Your task to perform on an android device: Is it going to rain tomorrow? Image 0: 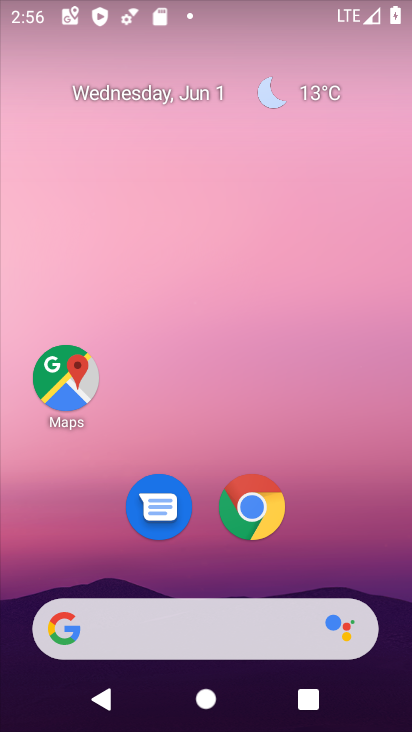
Step 0: drag from (342, 540) to (250, 266)
Your task to perform on an android device: Is it going to rain tomorrow? Image 1: 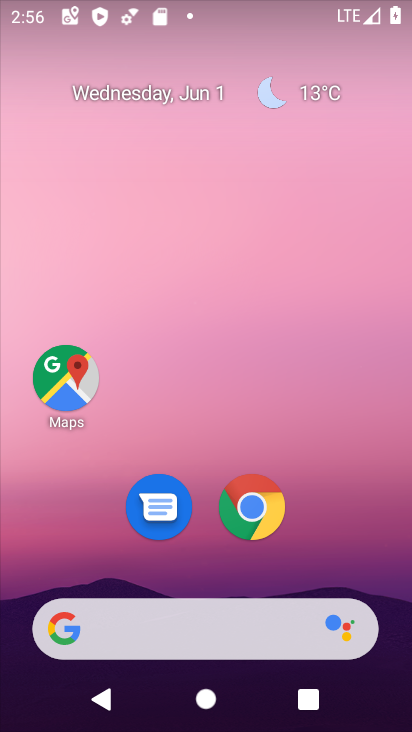
Step 1: click (251, 520)
Your task to perform on an android device: Is it going to rain tomorrow? Image 2: 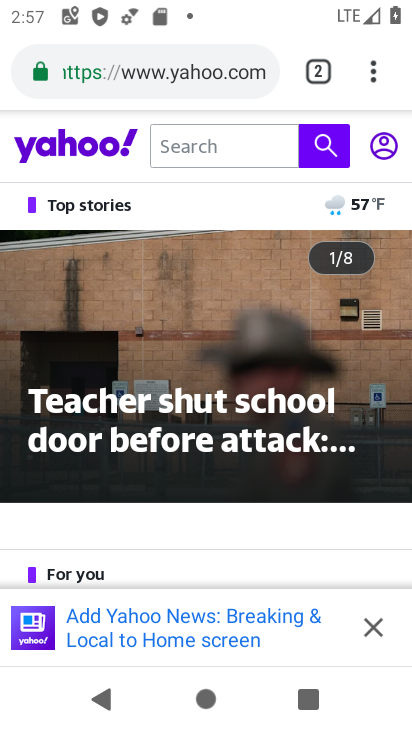
Step 2: click (324, 69)
Your task to perform on an android device: Is it going to rain tomorrow? Image 3: 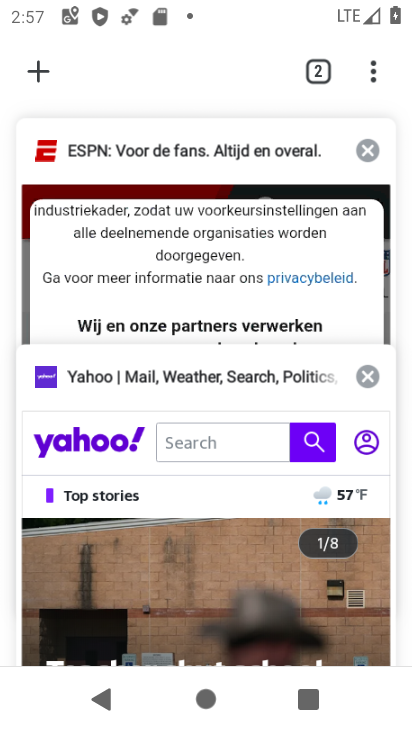
Step 3: click (37, 75)
Your task to perform on an android device: Is it going to rain tomorrow? Image 4: 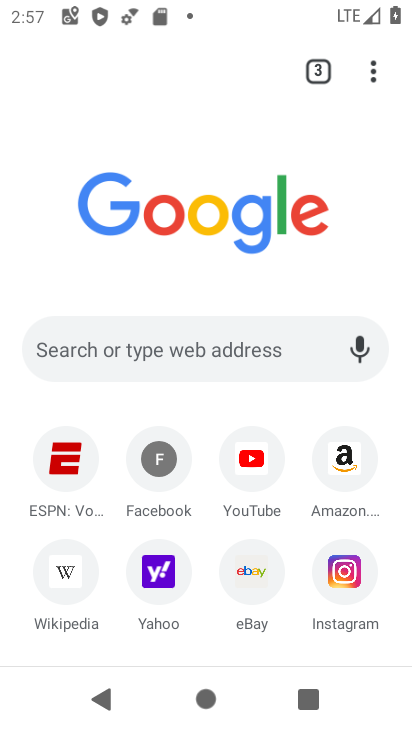
Step 4: click (124, 361)
Your task to perform on an android device: Is it going to rain tomorrow? Image 5: 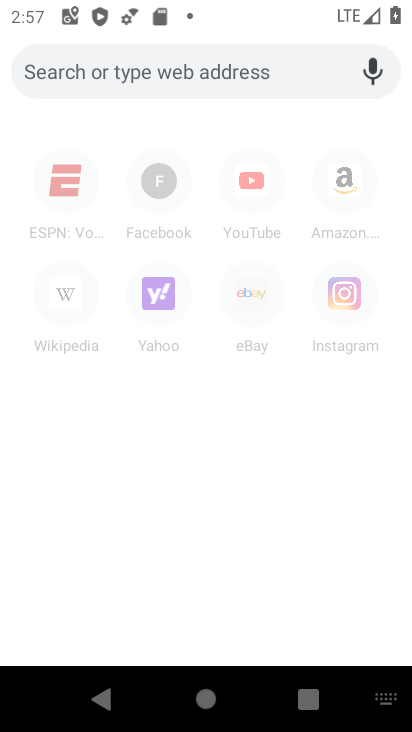
Step 5: type "is it going to rain tomorrow?"
Your task to perform on an android device: Is it going to rain tomorrow? Image 6: 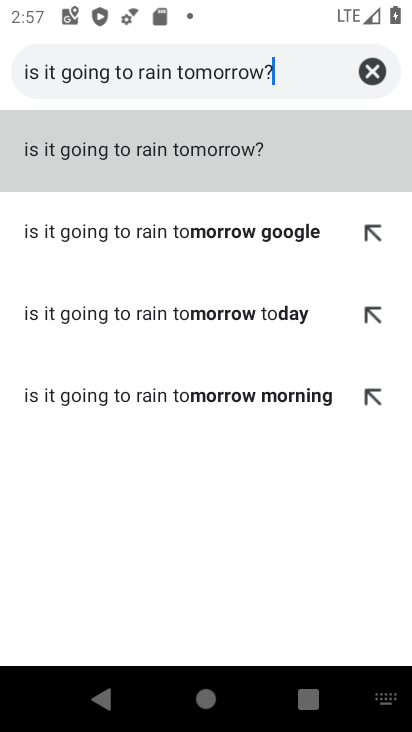
Step 6: click (159, 150)
Your task to perform on an android device: Is it going to rain tomorrow? Image 7: 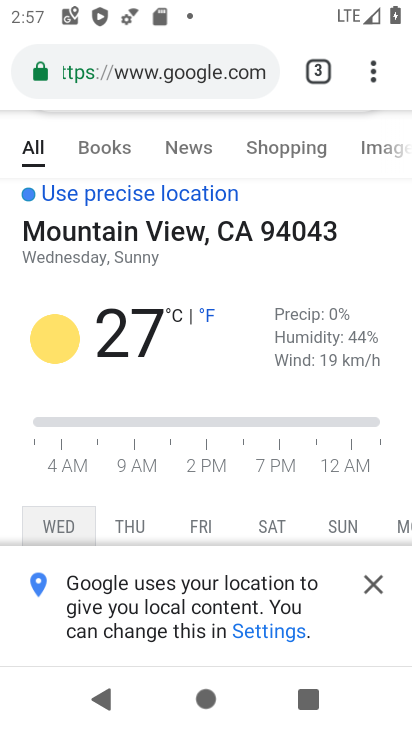
Step 7: drag from (142, 535) to (86, 231)
Your task to perform on an android device: Is it going to rain tomorrow? Image 8: 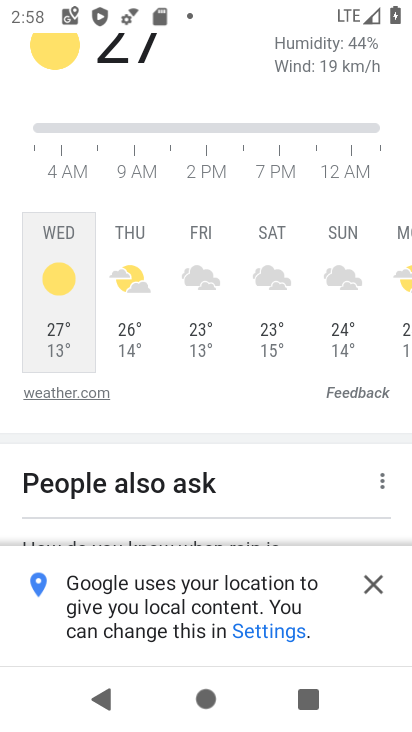
Step 8: click (371, 588)
Your task to perform on an android device: Is it going to rain tomorrow? Image 9: 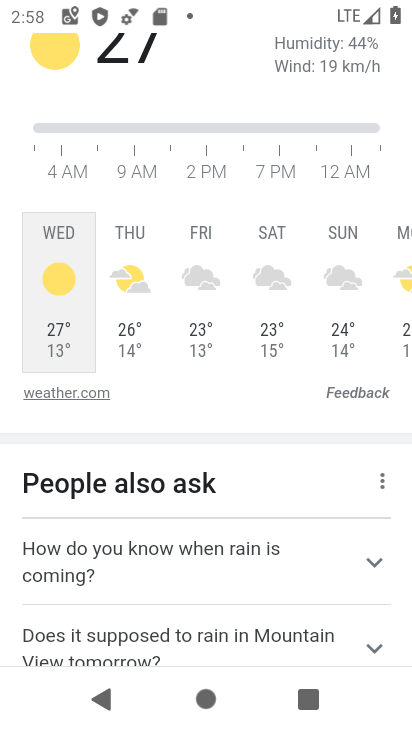
Step 9: task complete